Your task to perform on an android device: Open the web browser Image 0: 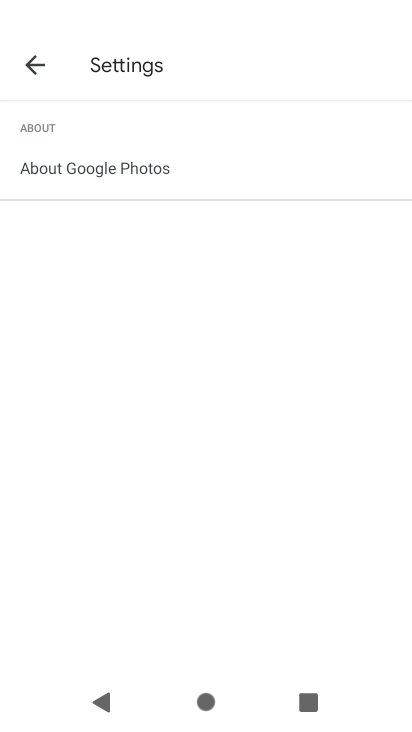
Step 0: press home button
Your task to perform on an android device: Open the web browser Image 1: 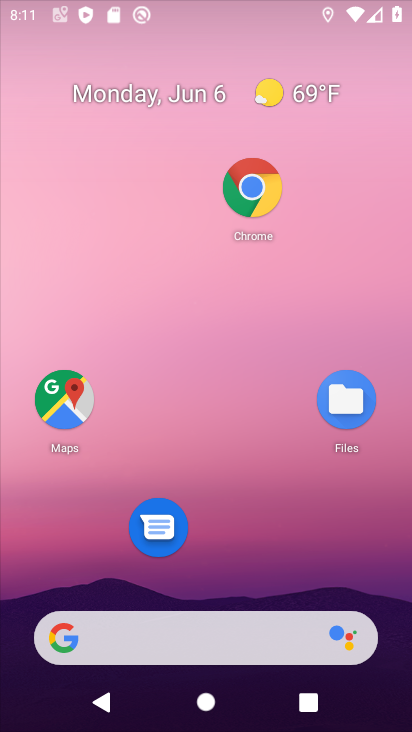
Step 1: drag from (235, 527) to (215, 110)
Your task to perform on an android device: Open the web browser Image 2: 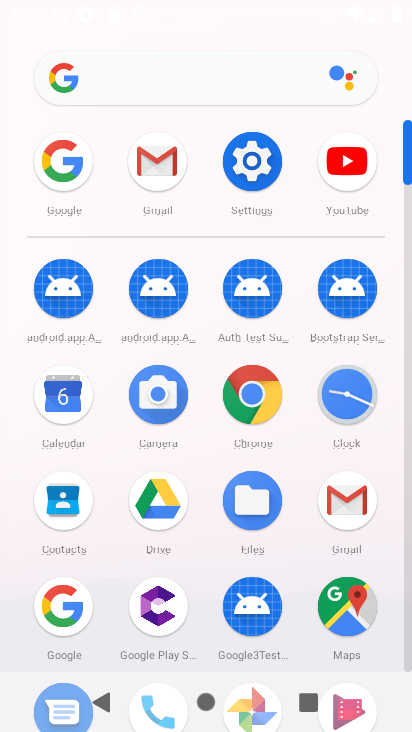
Step 2: click (53, 610)
Your task to perform on an android device: Open the web browser Image 3: 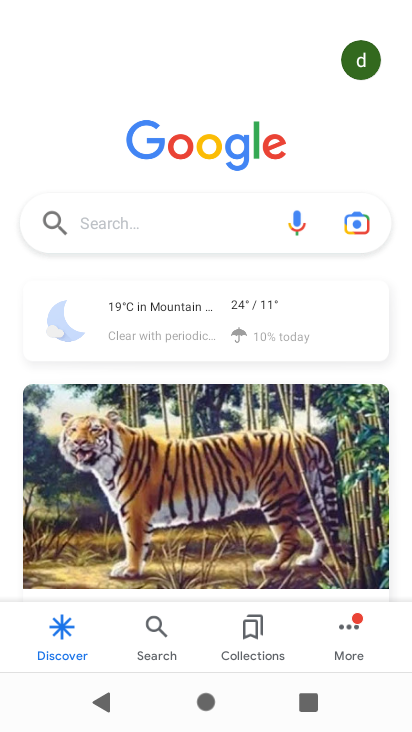
Step 3: task complete